Your task to perform on an android device: Open the Play Movies app and select the watchlist tab. Image 0: 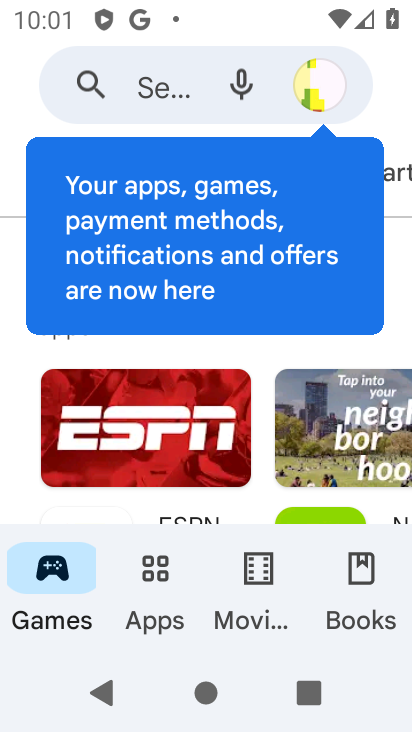
Step 0: press home button
Your task to perform on an android device: Open the Play Movies app and select the watchlist tab. Image 1: 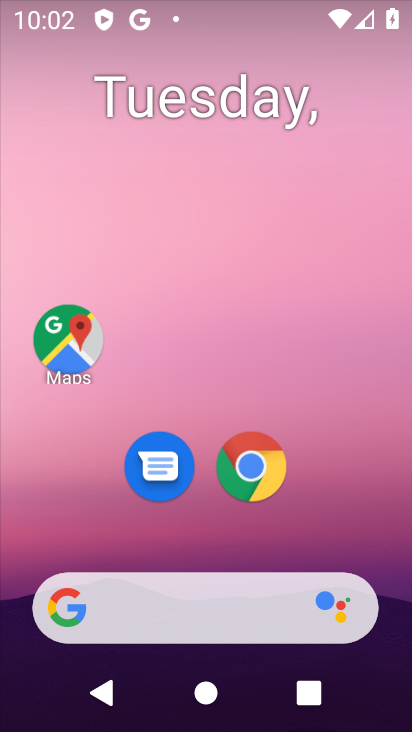
Step 1: drag from (375, 513) to (210, 86)
Your task to perform on an android device: Open the Play Movies app and select the watchlist tab. Image 2: 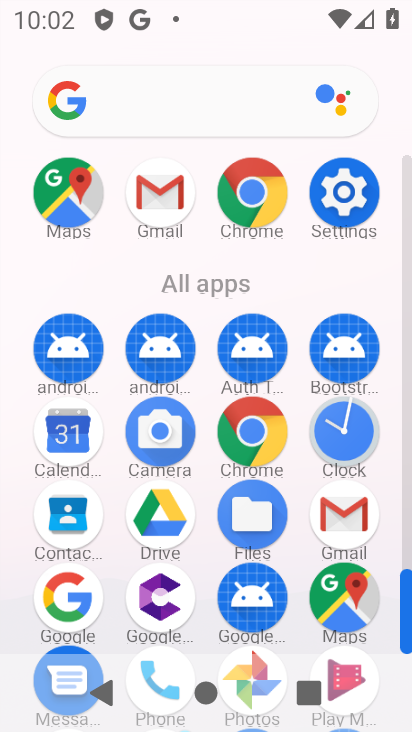
Step 2: drag from (302, 549) to (313, 321)
Your task to perform on an android device: Open the Play Movies app and select the watchlist tab. Image 3: 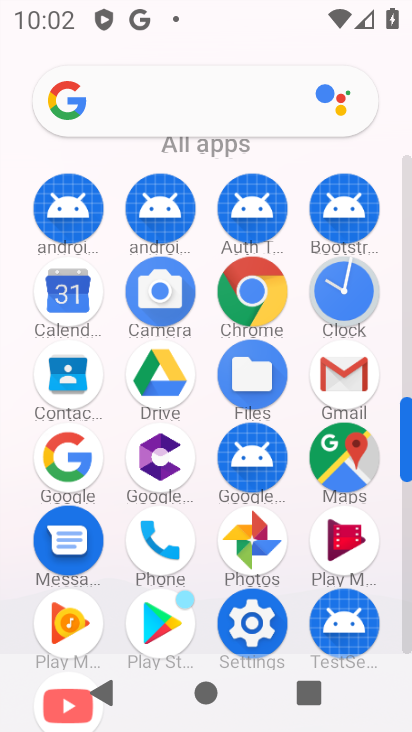
Step 3: click (338, 540)
Your task to perform on an android device: Open the Play Movies app and select the watchlist tab. Image 4: 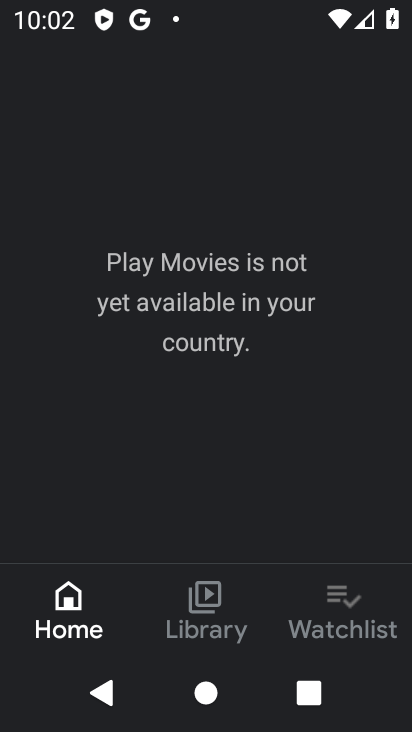
Step 4: click (343, 602)
Your task to perform on an android device: Open the Play Movies app and select the watchlist tab. Image 5: 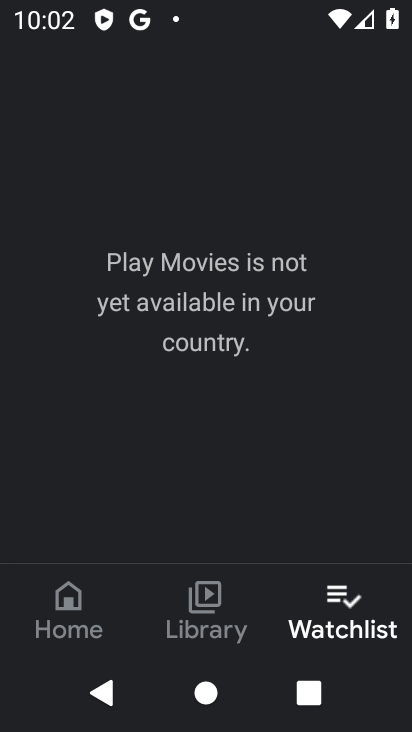
Step 5: task complete